Your task to perform on an android device: Search for razer thresher on amazon, select the first entry, add it to the cart, then select checkout. Image 0: 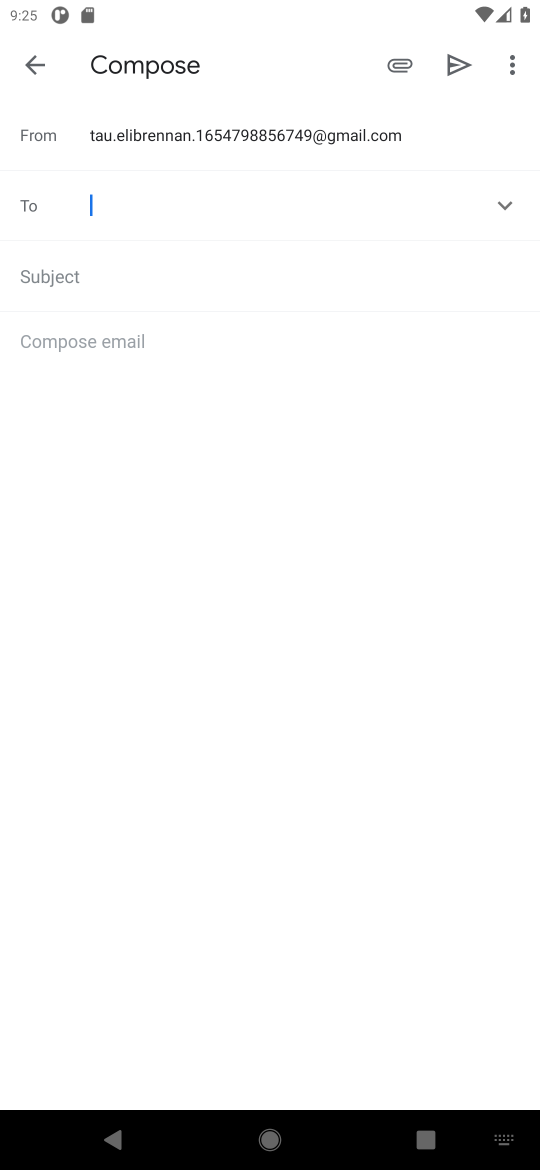
Step 0: press home button
Your task to perform on an android device: Search for razer thresher on amazon, select the first entry, add it to the cart, then select checkout. Image 1: 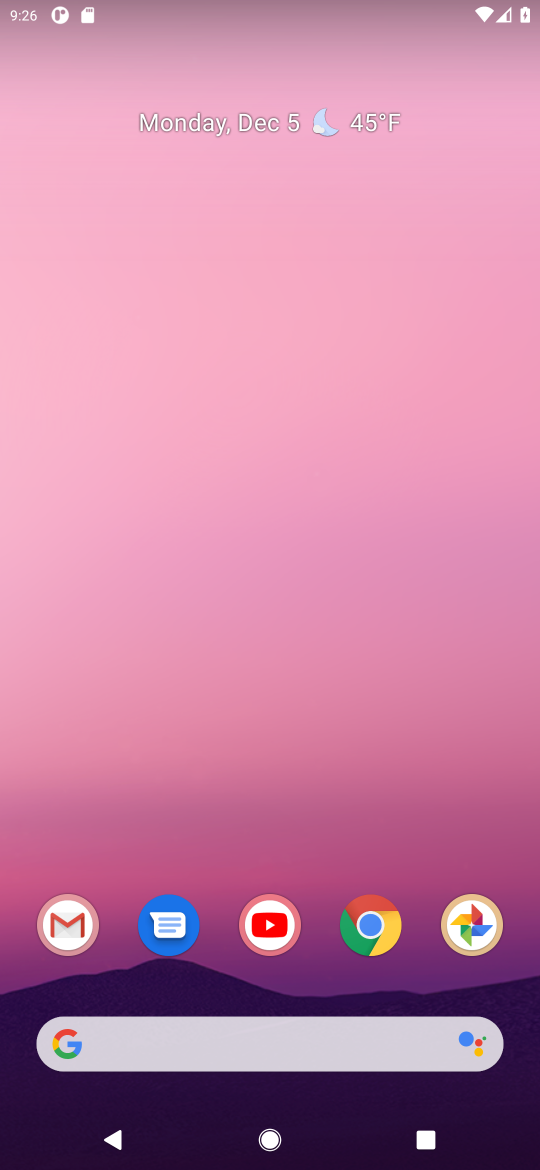
Step 1: click (372, 928)
Your task to perform on an android device: Search for razer thresher on amazon, select the first entry, add it to the cart, then select checkout. Image 2: 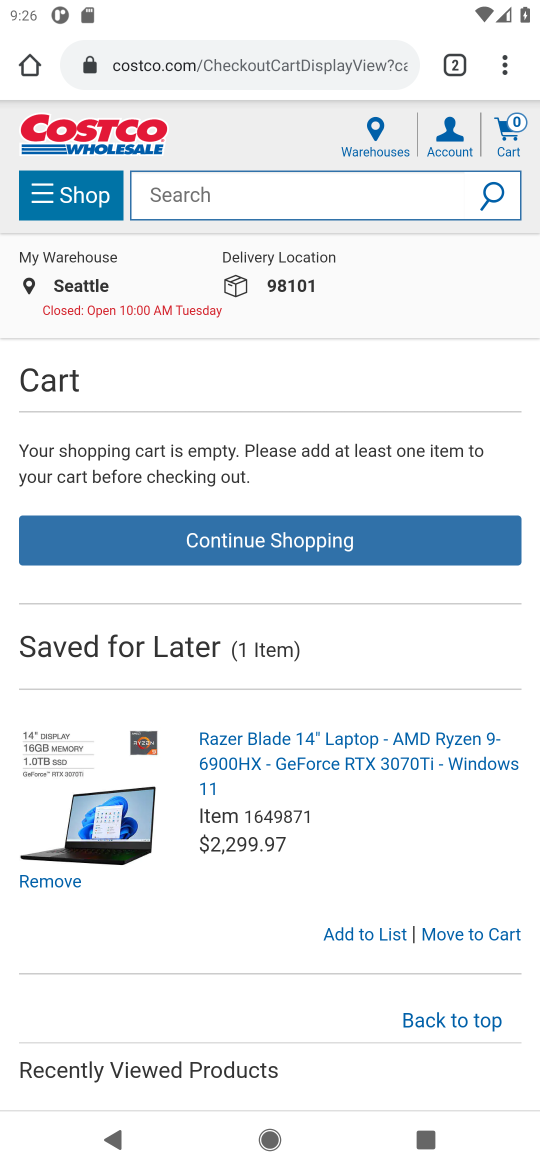
Step 2: click (174, 69)
Your task to perform on an android device: Search for razer thresher on amazon, select the first entry, add it to the cart, then select checkout. Image 3: 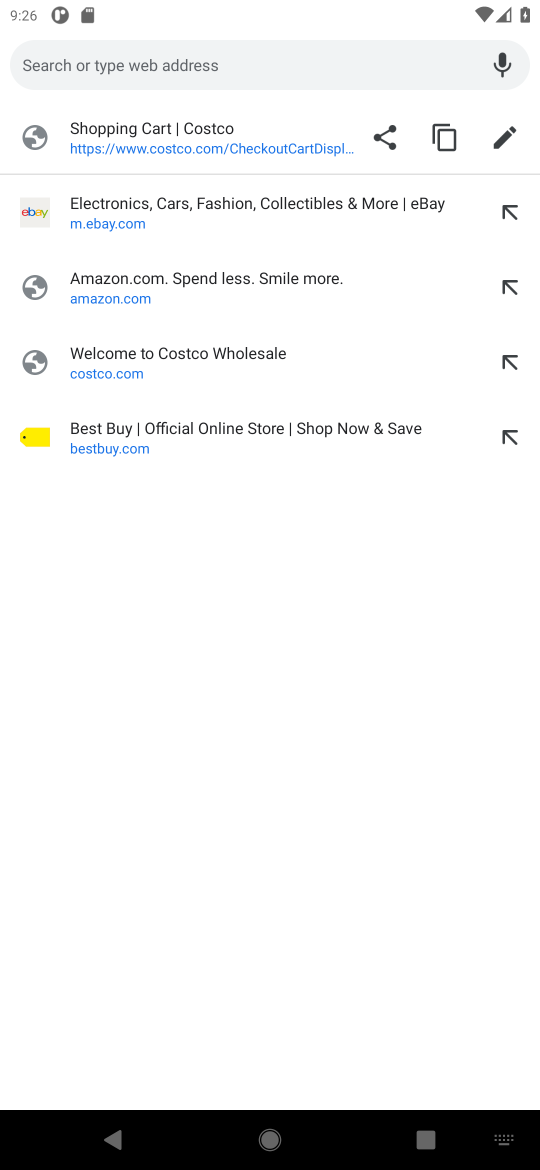
Step 3: click (77, 297)
Your task to perform on an android device: Search for razer thresher on amazon, select the first entry, add it to the cart, then select checkout. Image 4: 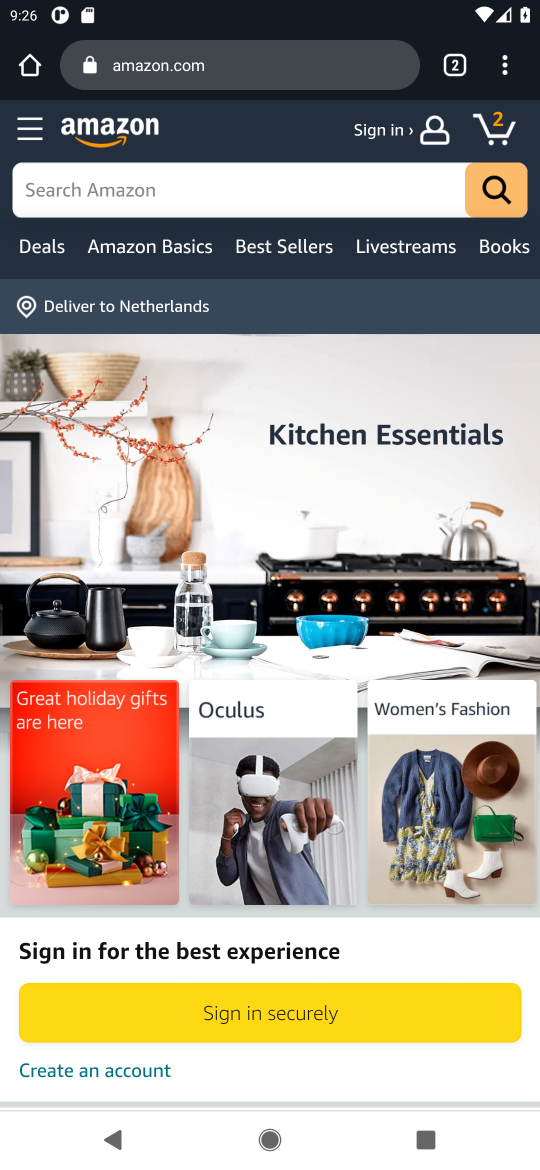
Step 4: click (155, 175)
Your task to perform on an android device: Search for razer thresher on amazon, select the first entry, add it to the cart, then select checkout. Image 5: 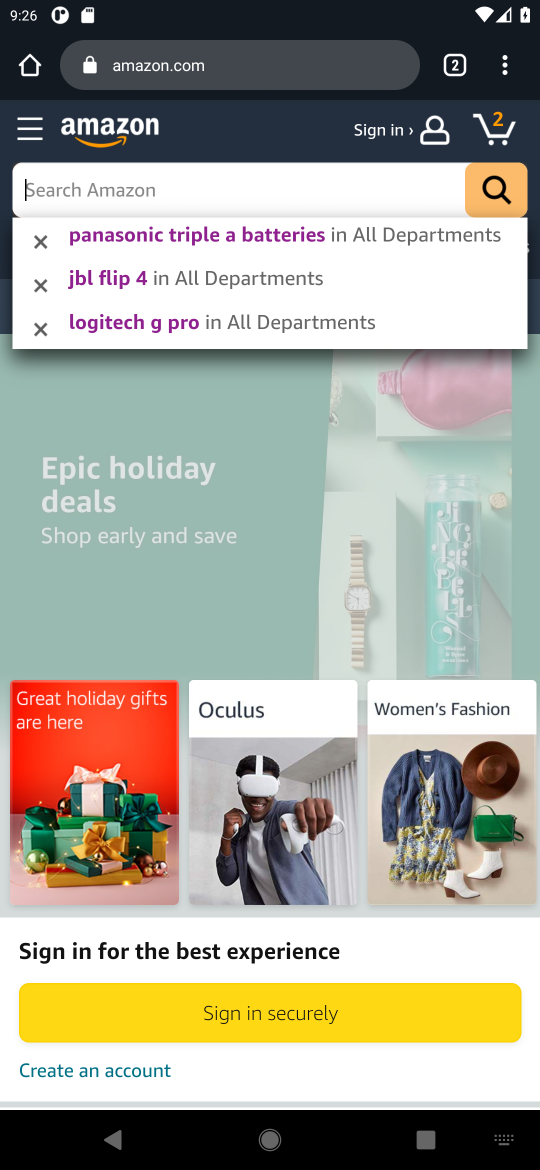
Step 5: type "razer thresher"
Your task to perform on an android device: Search for razer thresher on amazon, select the first entry, add it to the cart, then select checkout. Image 6: 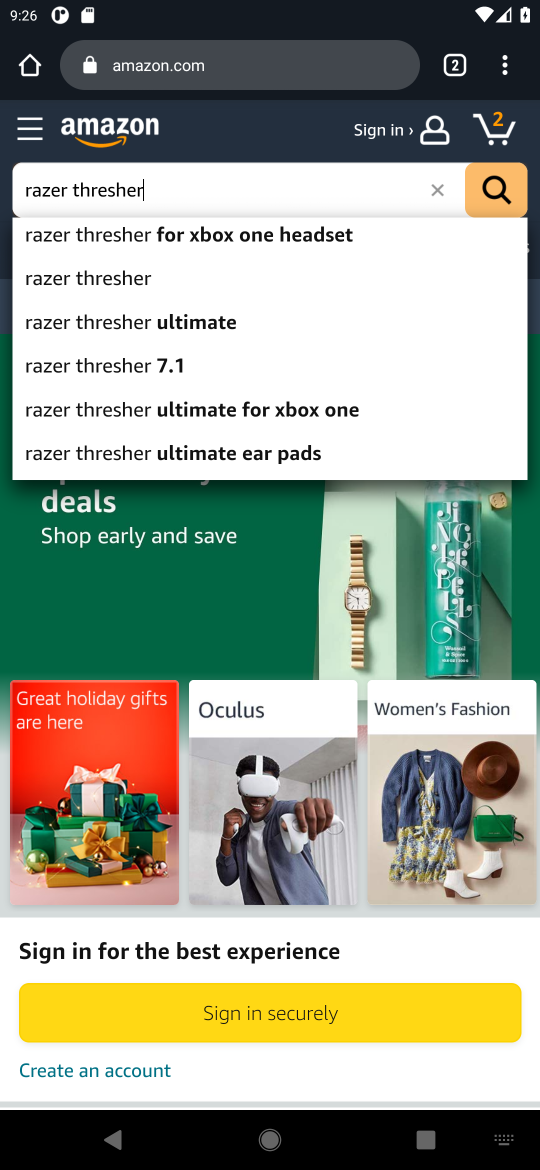
Step 6: click (79, 289)
Your task to perform on an android device: Search for razer thresher on amazon, select the first entry, add it to the cart, then select checkout. Image 7: 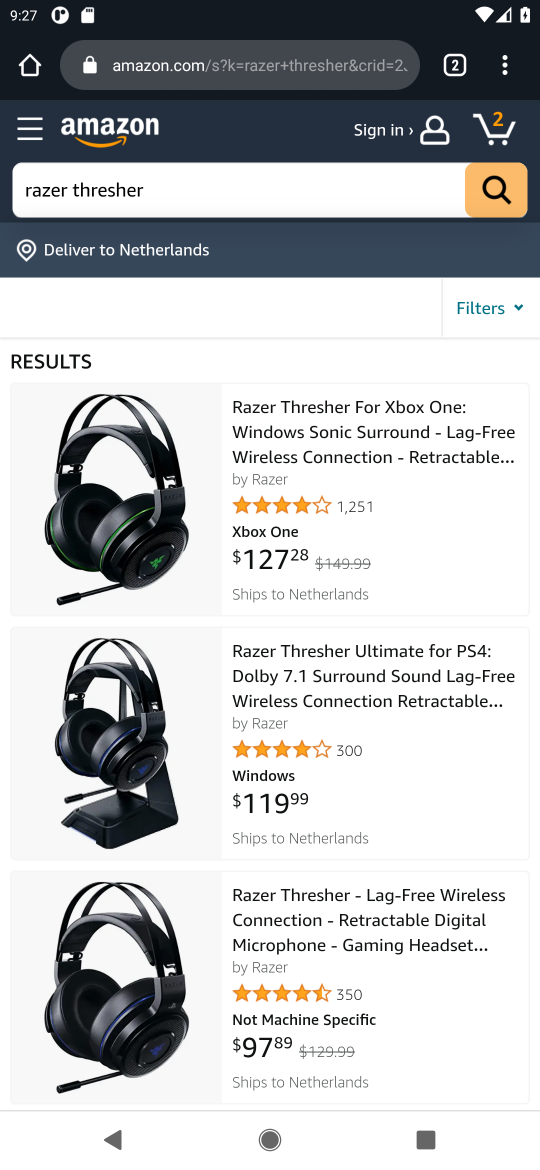
Step 7: click (308, 448)
Your task to perform on an android device: Search for razer thresher on amazon, select the first entry, add it to the cart, then select checkout. Image 8: 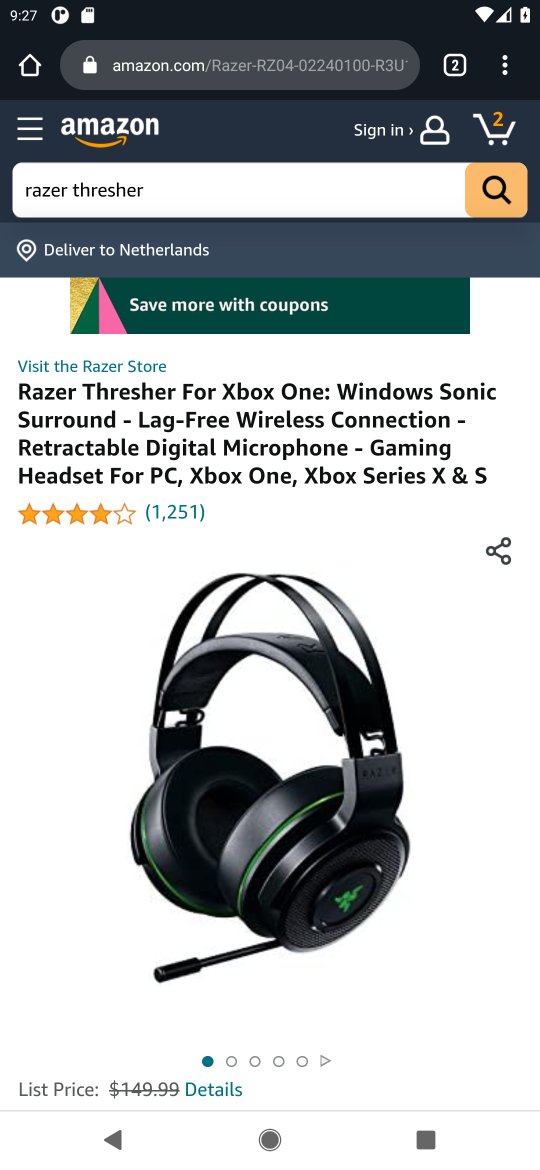
Step 8: drag from (261, 767) to (248, 377)
Your task to perform on an android device: Search for razer thresher on amazon, select the first entry, add it to the cart, then select checkout. Image 9: 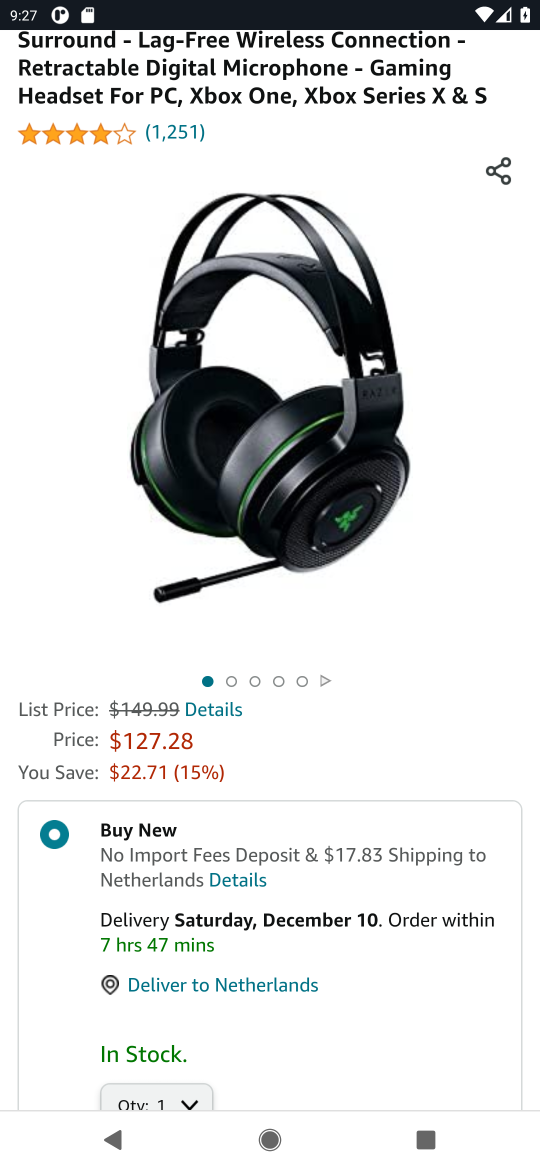
Step 9: drag from (278, 815) to (294, 513)
Your task to perform on an android device: Search for razer thresher on amazon, select the first entry, add it to the cart, then select checkout. Image 10: 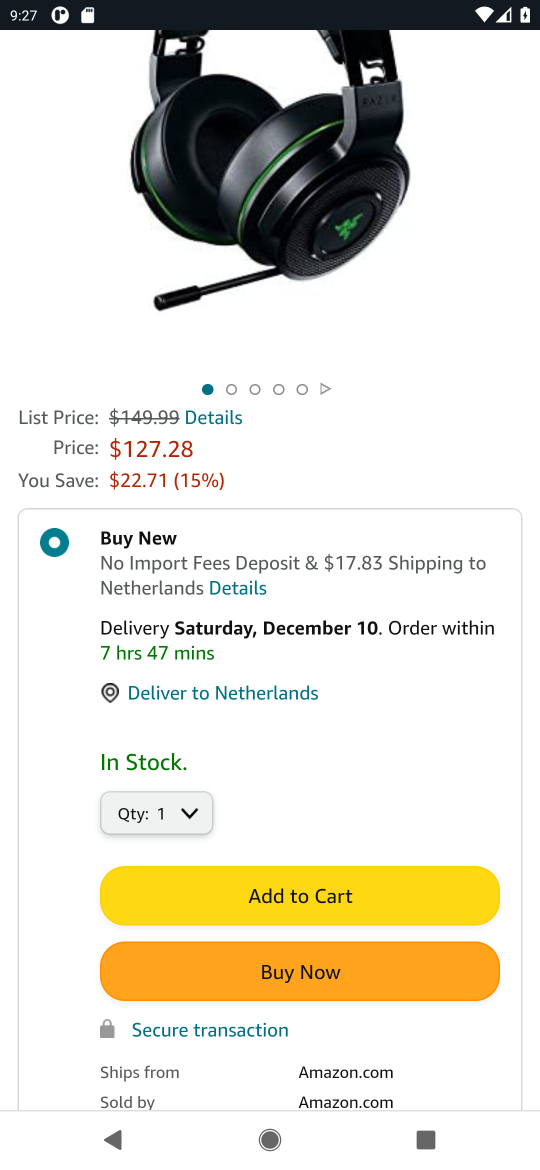
Step 10: click (280, 907)
Your task to perform on an android device: Search for razer thresher on amazon, select the first entry, add it to the cart, then select checkout. Image 11: 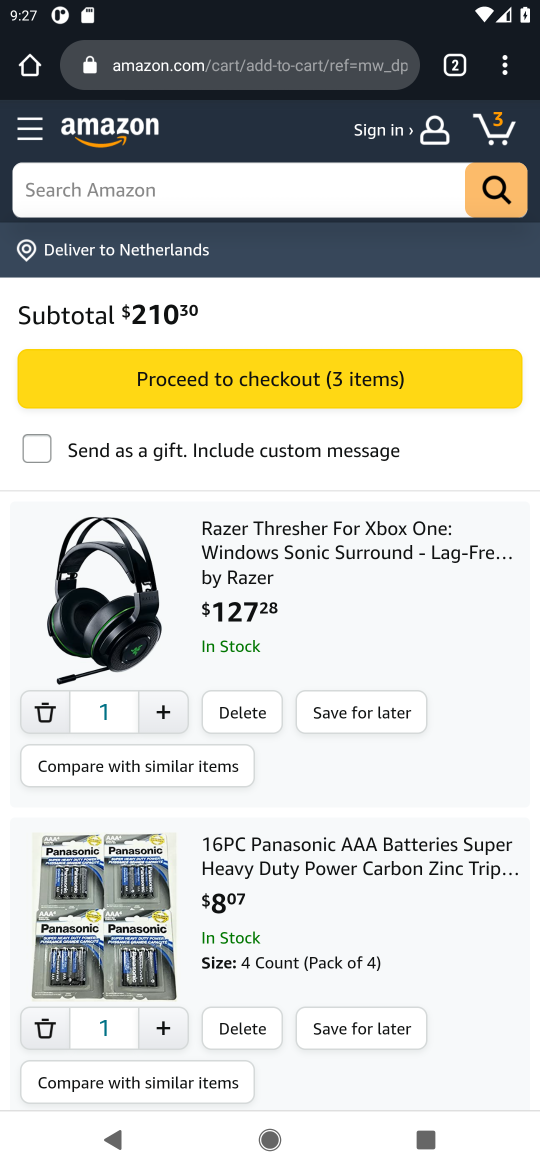
Step 11: click (233, 381)
Your task to perform on an android device: Search for razer thresher on amazon, select the first entry, add it to the cart, then select checkout. Image 12: 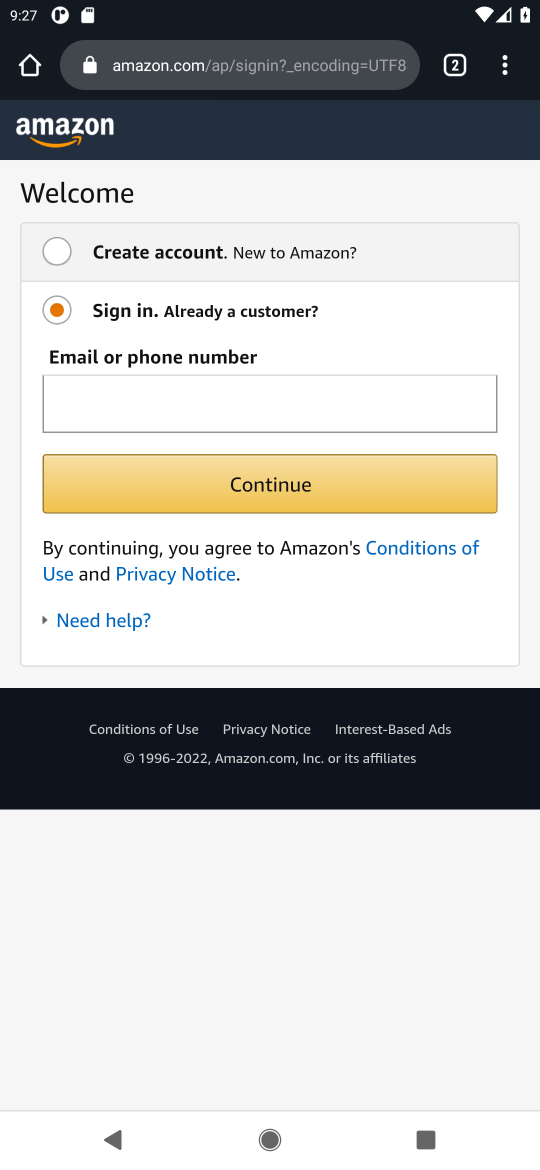
Step 12: task complete